Your task to perform on an android device: clear history in the chrome app Image 0: 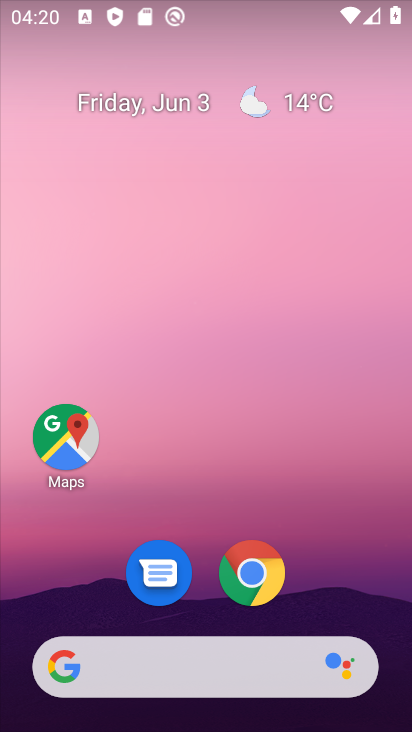
Step 0: drag from (220, 669) to (286, 101)
Your task to perform on an android device: clear history in the chrome app Image 1: 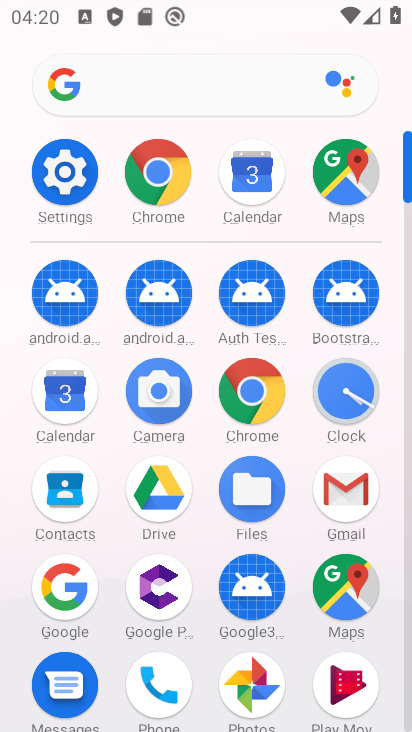
Step 1: click (262, 374)
Your task to perform on an android device: clear history in the chrome app Image 2: 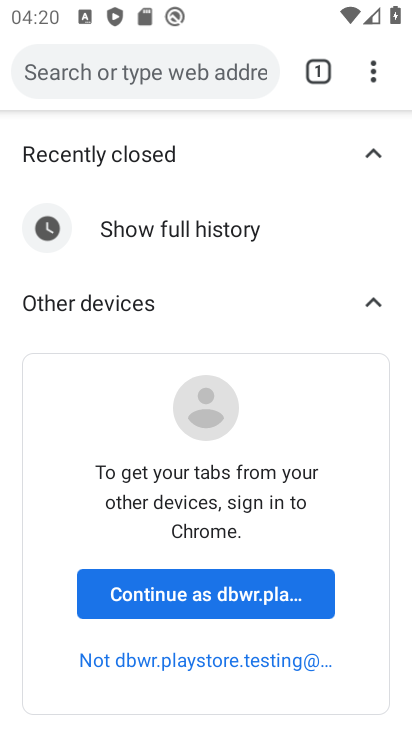
Step 2: task complete